Your task to perform on an android device: Open Yahoo.com Image 0: 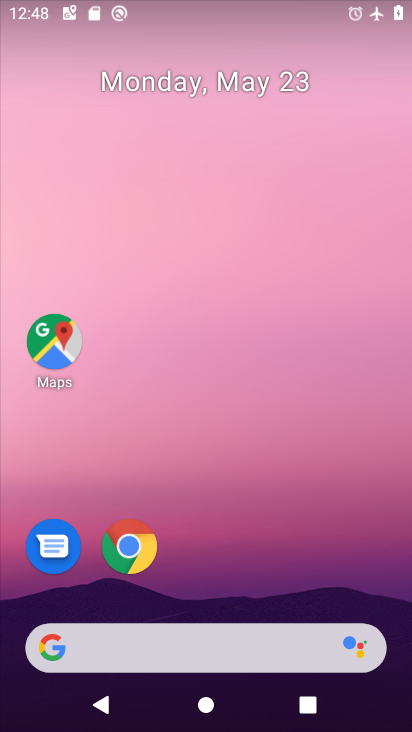
Step 0: drag from (221, 661) to (236, 3)
Your task to perform on an android device: Open Yahoo.com Image 1: 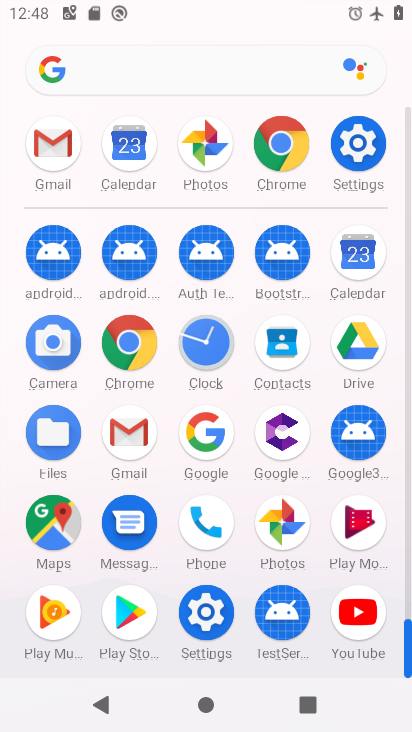
Step 1: click (286, 161)
Your task to perform on an android device: Open Yahoo.com Image 2: 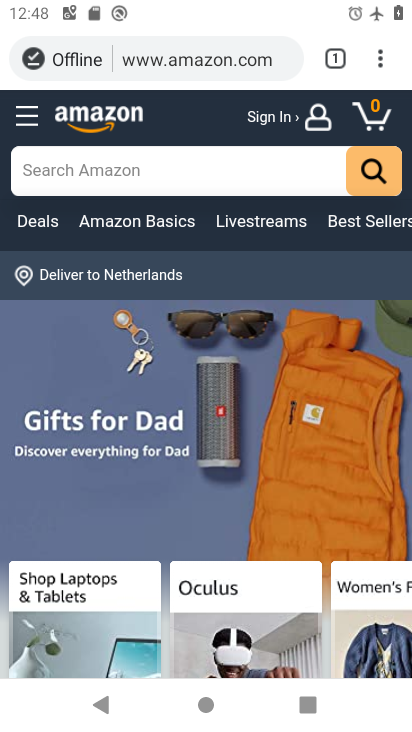
Step 2: click (198, 62)
Your task to perform on an android device: Open Yahoo.com Image 3: 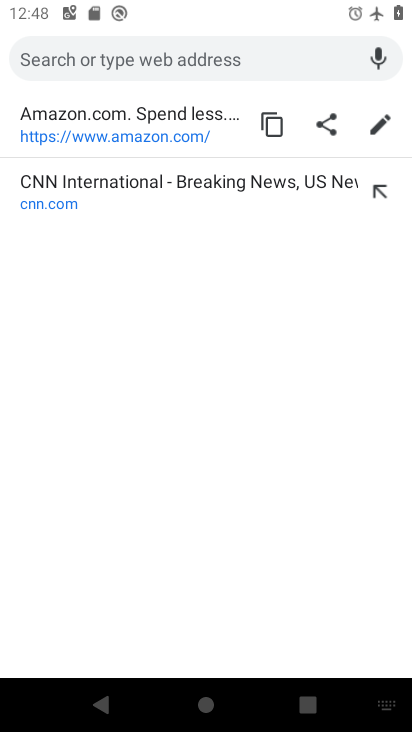
Step 3: type "yahoo"
Your task to perform on an android device: Open Yahoo.com Image 4: 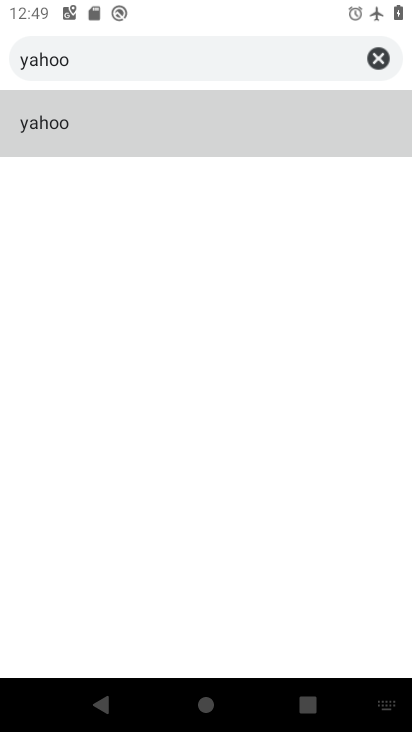
Step 4: task complete